Your task to perform on an android device: turn vacation reply on in the gmail app Image 0: 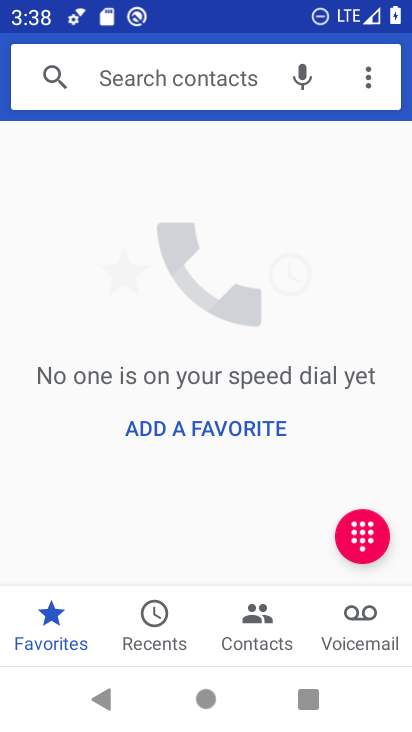
Step 0: drag from (175, 543) to (253, 92)
Your task to perform on an android device: turn vacation reply on in the gmail app Image 1: 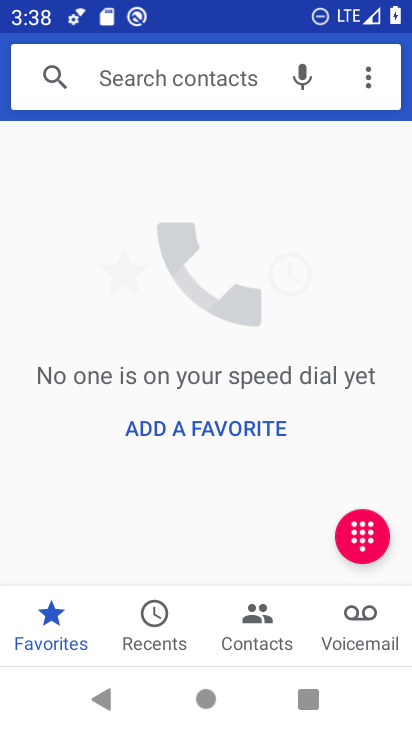
Step 1: press home button
Your task to perform on an android device: turn vacation reply on in the gmail app Image 2: 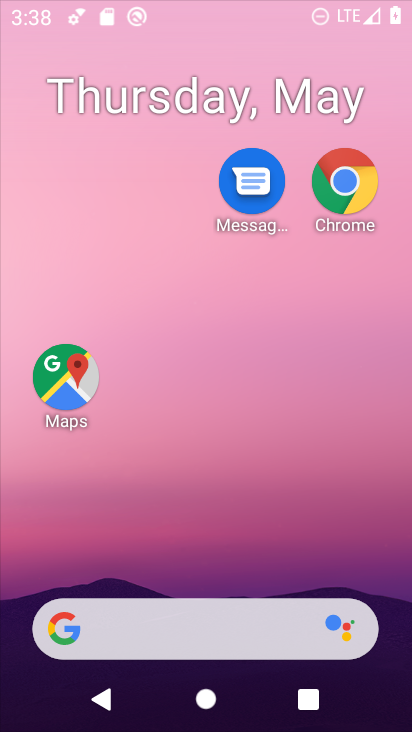
Step 2: drag from (226, 466) to (236, 17)
Your task to perform on an android device: turn vacation reply on in the gmail app Image 3: 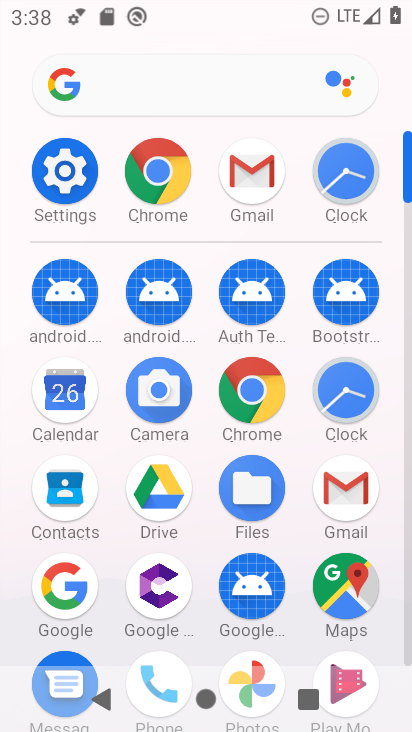
Step 3: click (66, 192)
Your task to perform on an android device: turn vacation reply on in the gmail app Image 4: 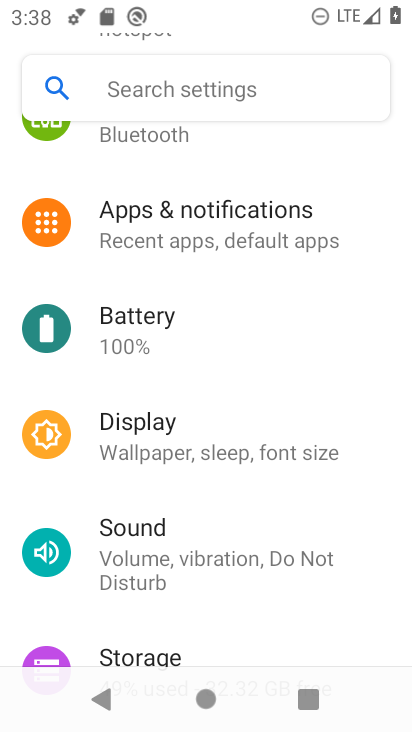
Step 4: press home button
Your task to perform on an android device: turn vacation reply on in the gmail app Image 5: 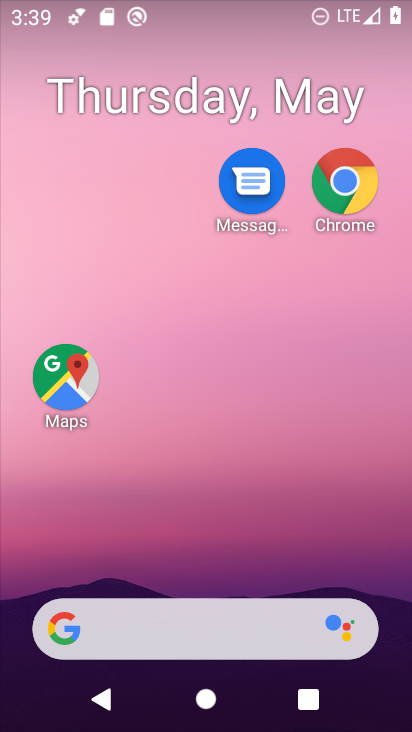
Step 5: drag from (196, 581) to (311, 67)
Your task to perform on an android device: turn vacation reply on in the gmail app Image 6: 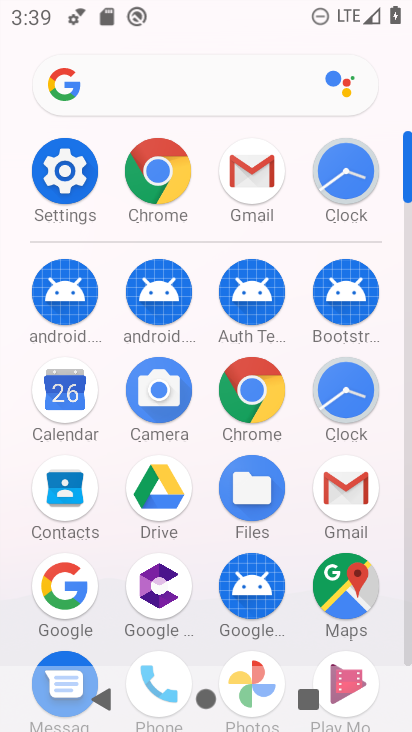
Step 6: click (253, 184)
Your task to perform on an android device: turn vacation reply on in the gmail app Image 7: 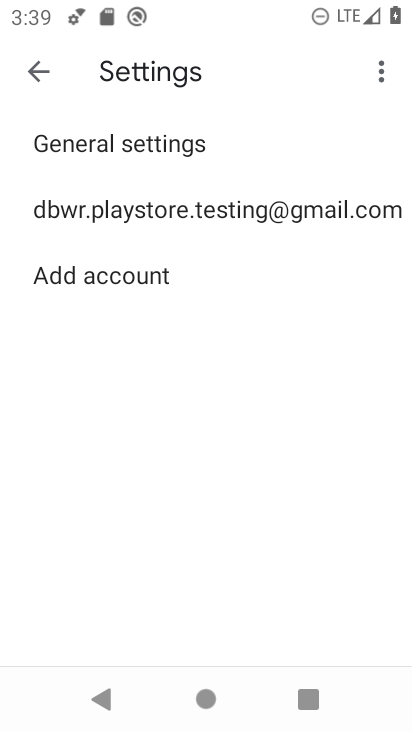
Step 7: click (383, 82)
Your task to perform on an android device: turn vacation reply on in the gmail app Image 8: 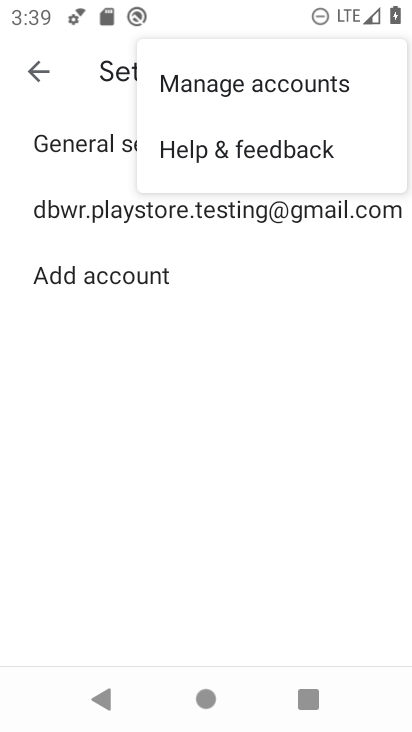
Step 8: click (29, 62)
Your task to perform on an android device: turn vacation reply on in the gmail app Image 9: 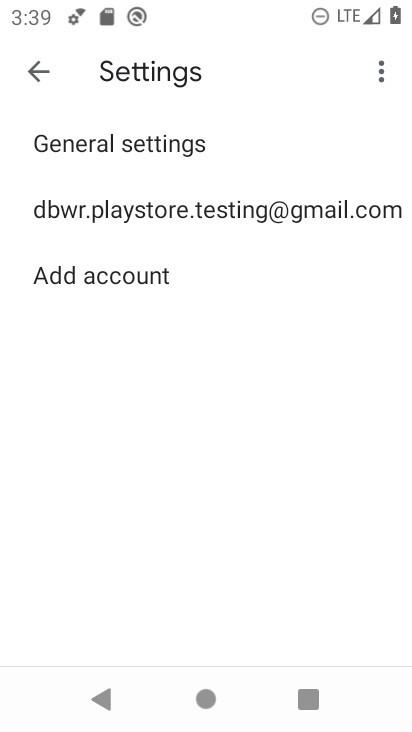
Step 9: click (50, 72)
Your task to perform on an android device: turn vacation reply on in the gmail app Image 10: 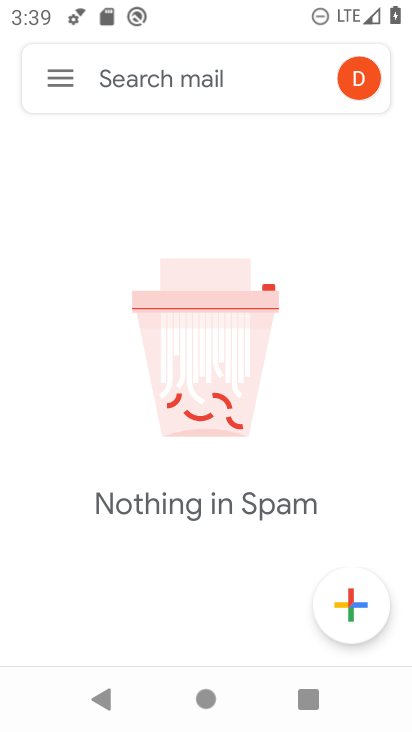
Step 10: click (52, 70)
Your task to perform on an android device: turn vacation reply on in the gmail app Image 11: 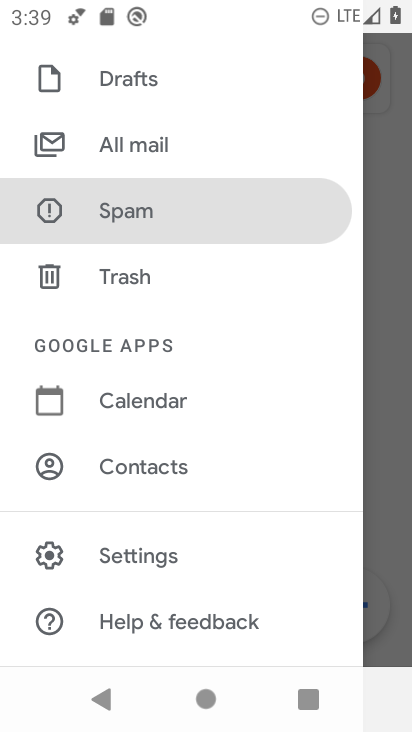
Step 11: click (104, 580)
Your task to perform on an android device: turn vacation reply on in the gmail app Image 12: 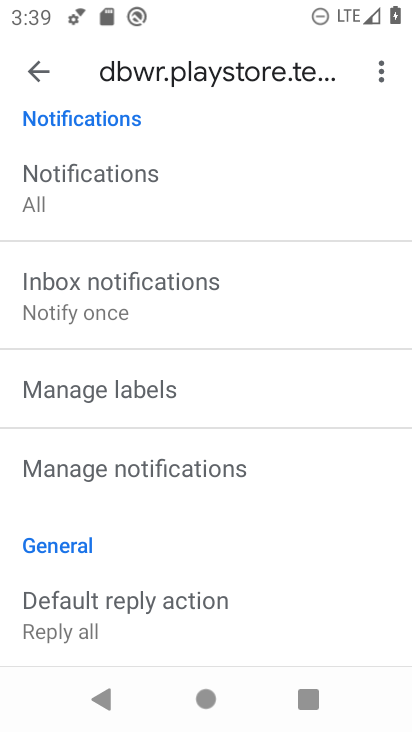
Step 12: drag from (297, 530) to (247, 234)
Your task to perform on an android device: turn vacation reply on in the gmail app Image 13: 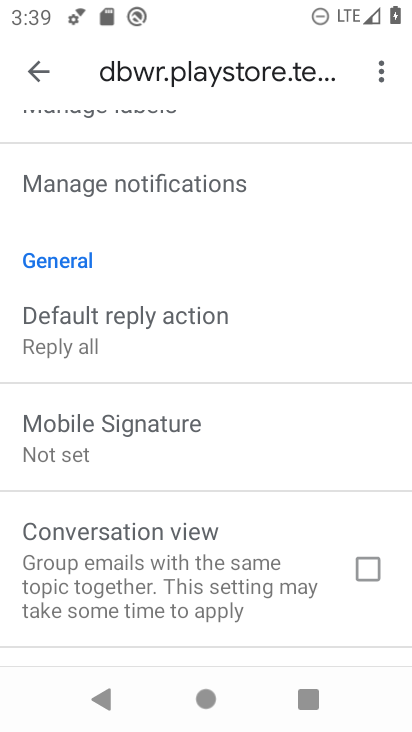
Step 13: click (166, 346)
Your task to perform on an android device: turn vacation reply on in the gmail app Image 14: 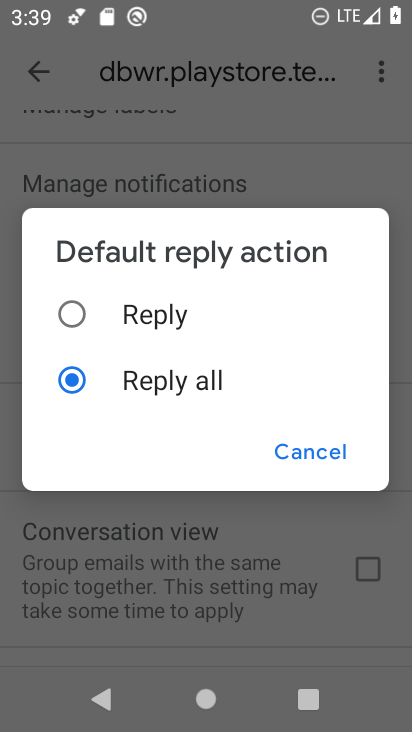
Step 14: click (296, 456)
Your task to perform on an android device: turn vacation reply on in the gmail app Image 15: 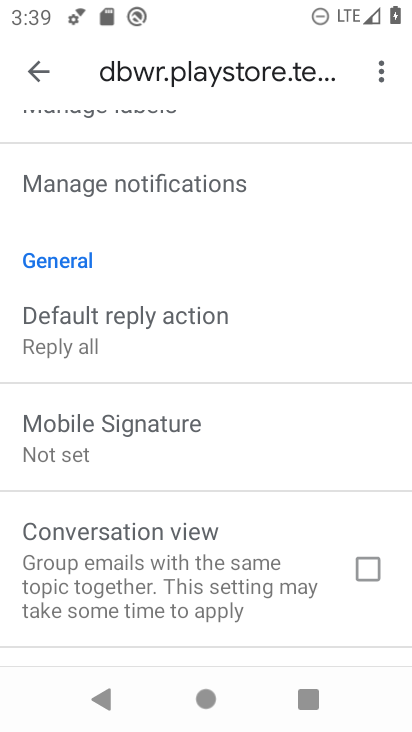
Step 15: drag from (296, 458) to (203, 215)
Your task to perform on an android device: turn vacation reply on in the gmail app Image 16: 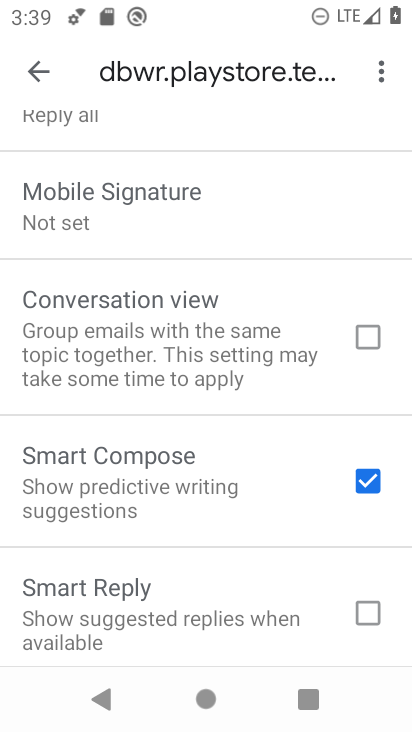
Step 16: drag from (269, 559) to (245, 339)
Your task to perform on an android device: turn vacation reply on in the gmail app Image 17: 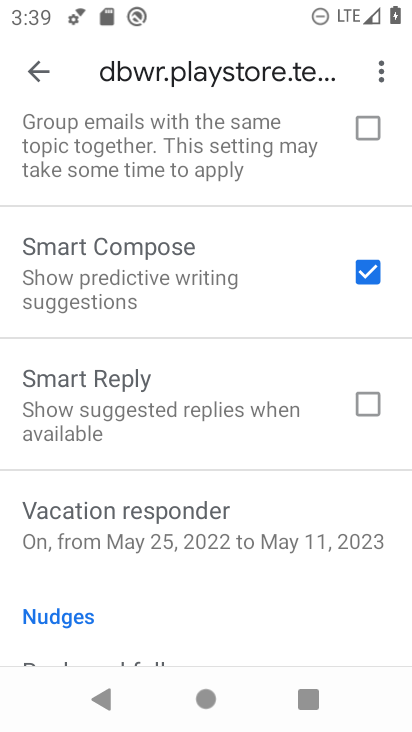
Step 17: click (178, 530)
Your task to perform on an android device: turn vacation reply on in the gmail app Image 18: 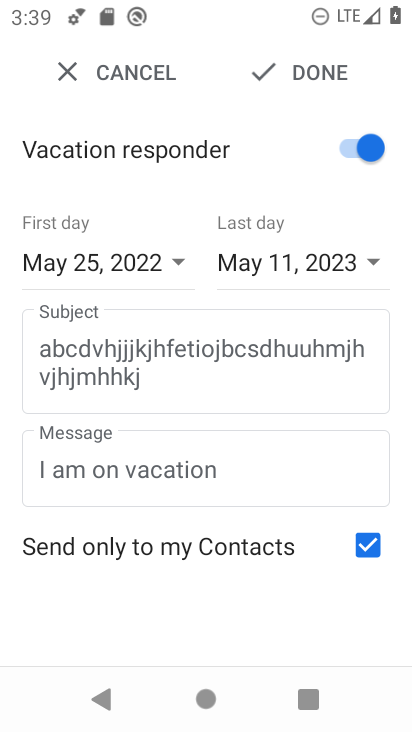
Step 18: click (319, 79)
Your task to perform on an android device: turn vacation reply on in the gmail app Image 19: 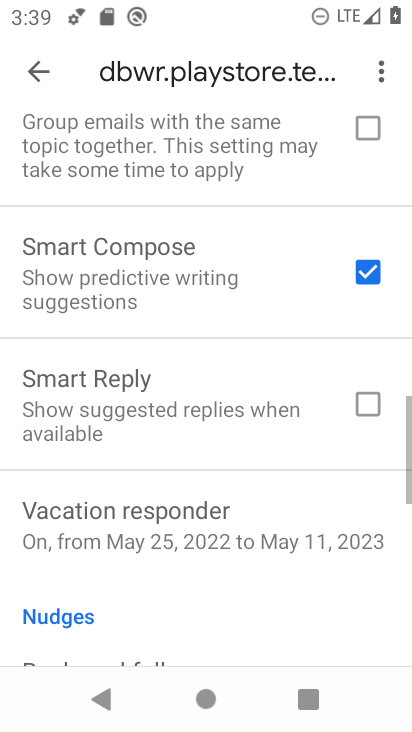
Step 19: task complete